Your task to perform on an android device: visit the assistant section in the google photos Image 0: 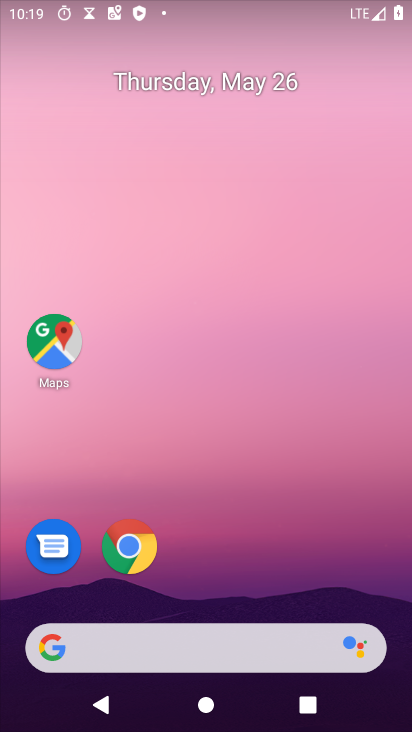
Step 0: drag from (326, 582) to (319, 103)
Your task to perform on an android device: visit the assistant section in the google photos Image 1: 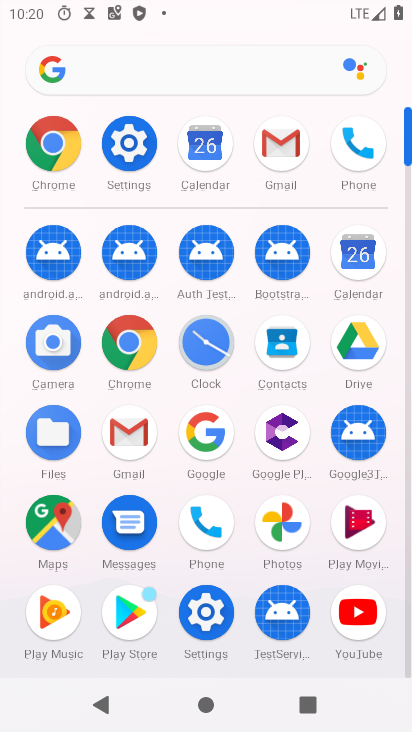
Step 1: click (285, 524)
Your task to perform on an android device: visit the assistant section in the google photos Image 2: 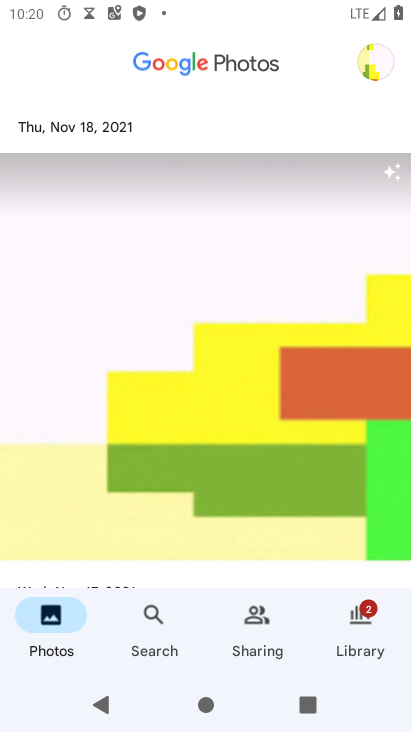
Step 2: click (150, 618)
Your task to perform on an android device: visit the assistant section in the google photos Image 3: 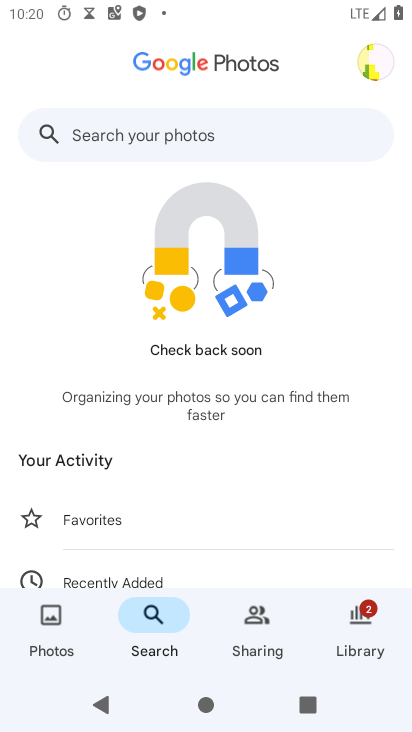
Step 3: click (176, 138)
Your task to perform on an android device: visit the assistant section in the google photos Image 4: 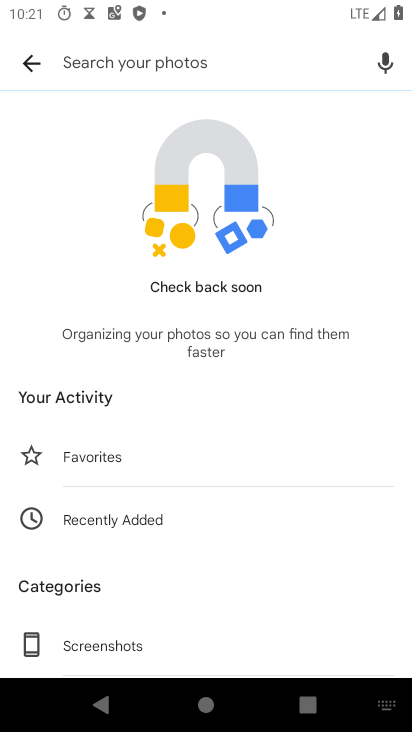
Step 4: type "assistant "
Your task to perform on an android device: visit the assistant section in the google photos Image 5: 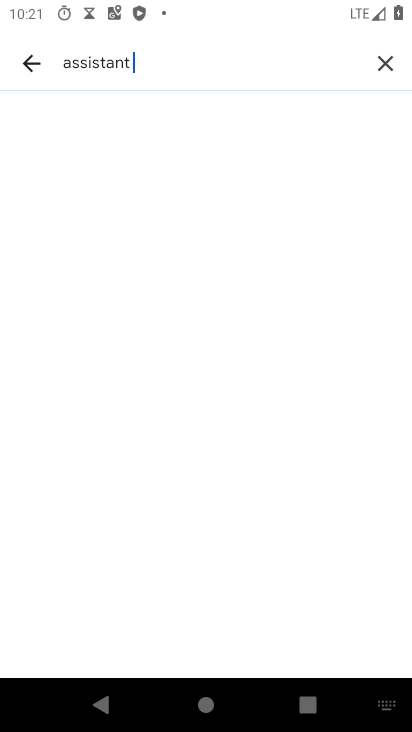
Step 5: task complete